Your task to perform on an android device: Go to calendar. Show me events next week Image 0: 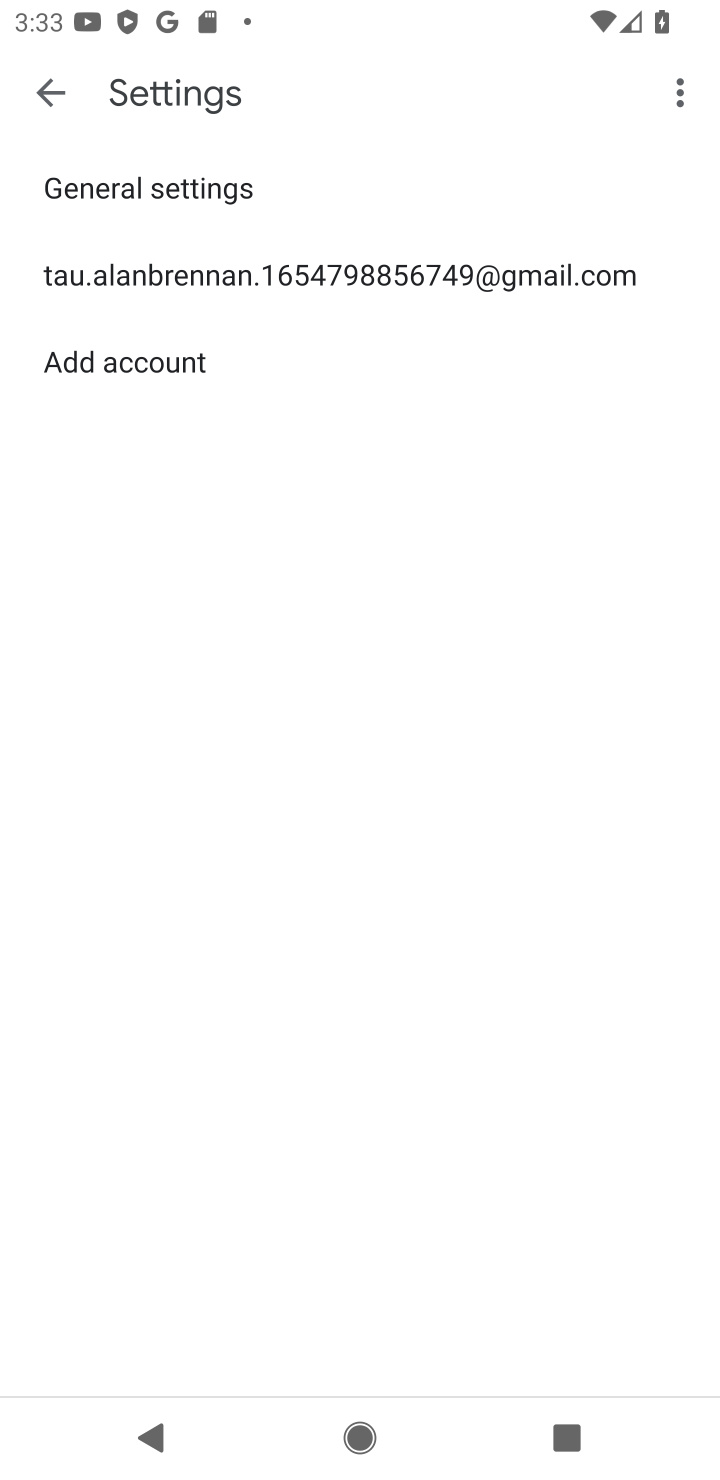
Step 0: press home button
Your task to perform on an android device: Go to calendar. Show me events next week Image 1: 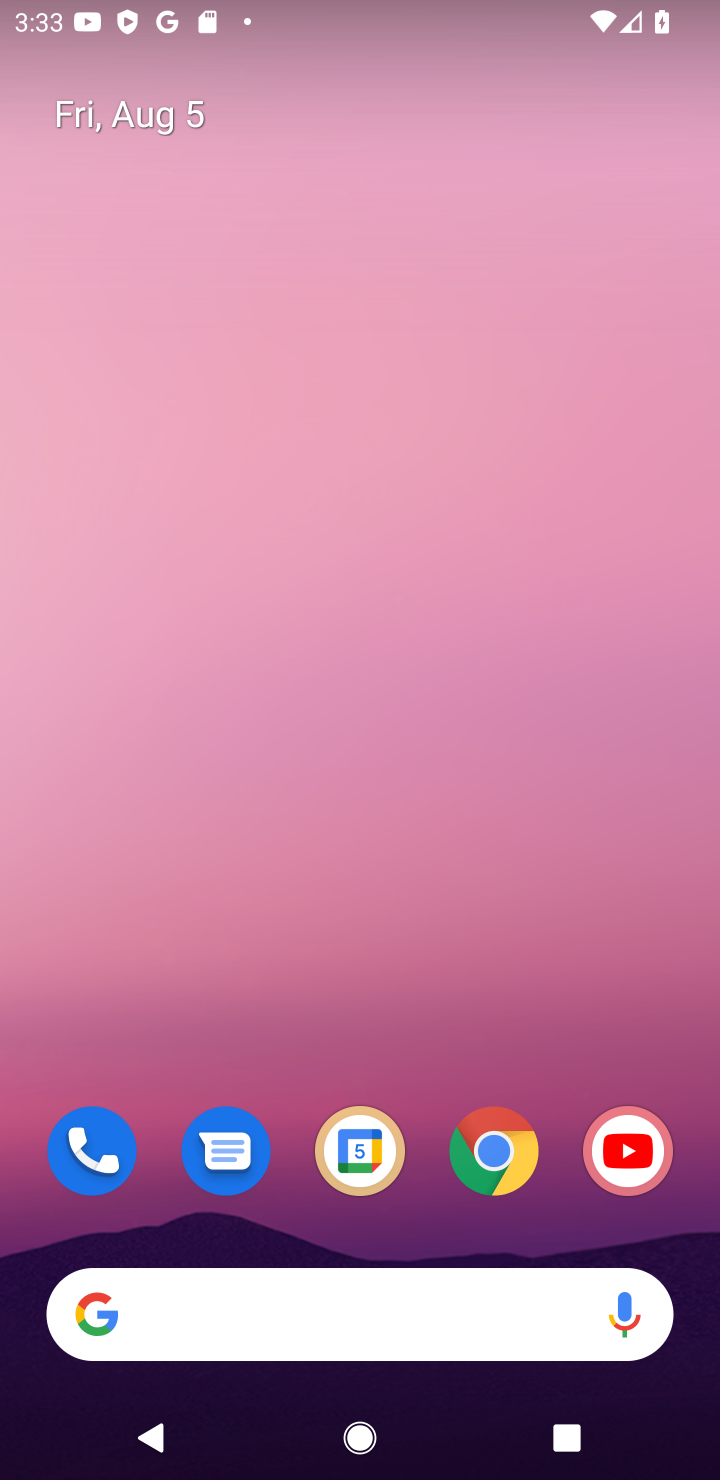
Step 1: click (357, 1154)
Your task to perform on an android device: Go to calendar. Show me events next week Image 2: 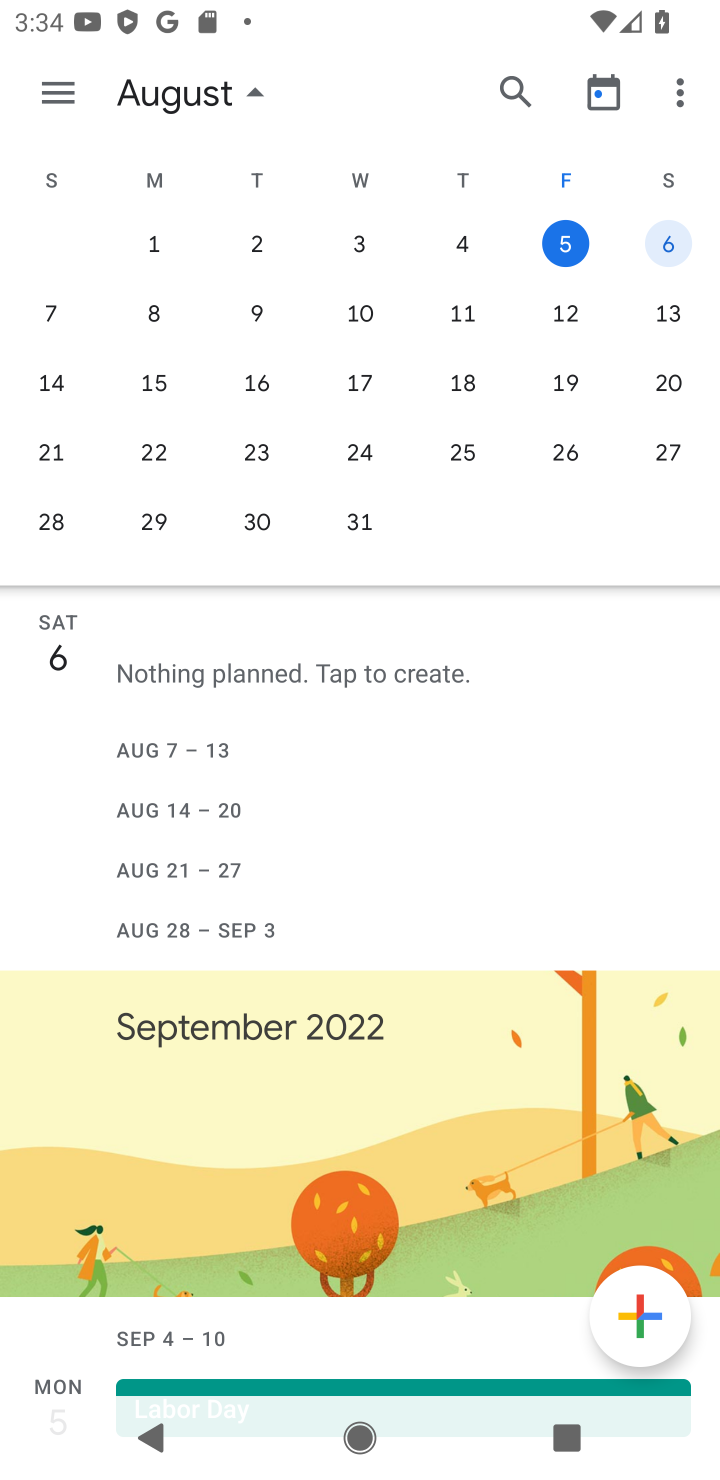
Step 2: click (71, 332)
Your task to perform on an android device: Go to calendar. Show me events next week Image 3: 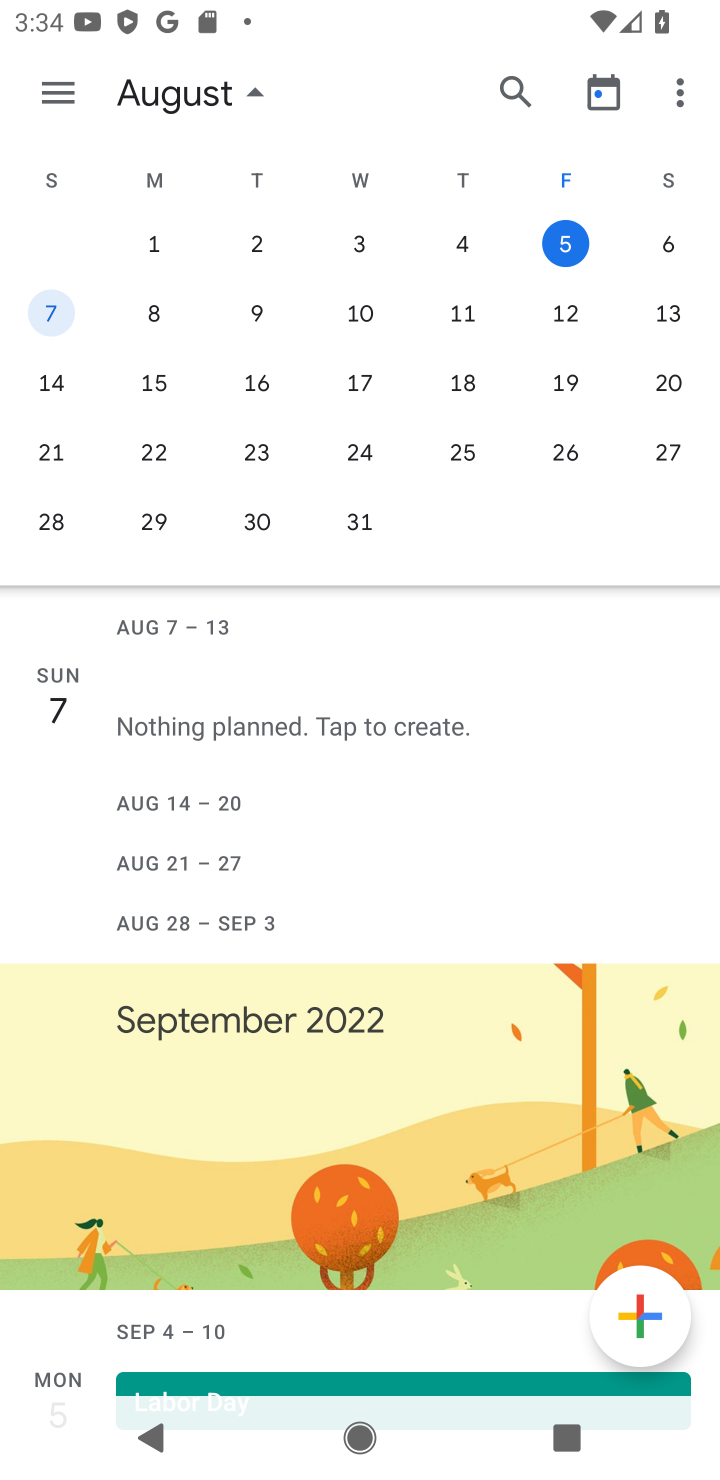
Step 3: click (143, 313)
Your task to perform on an android device: Go to calendar. Show me events next week Image 4: 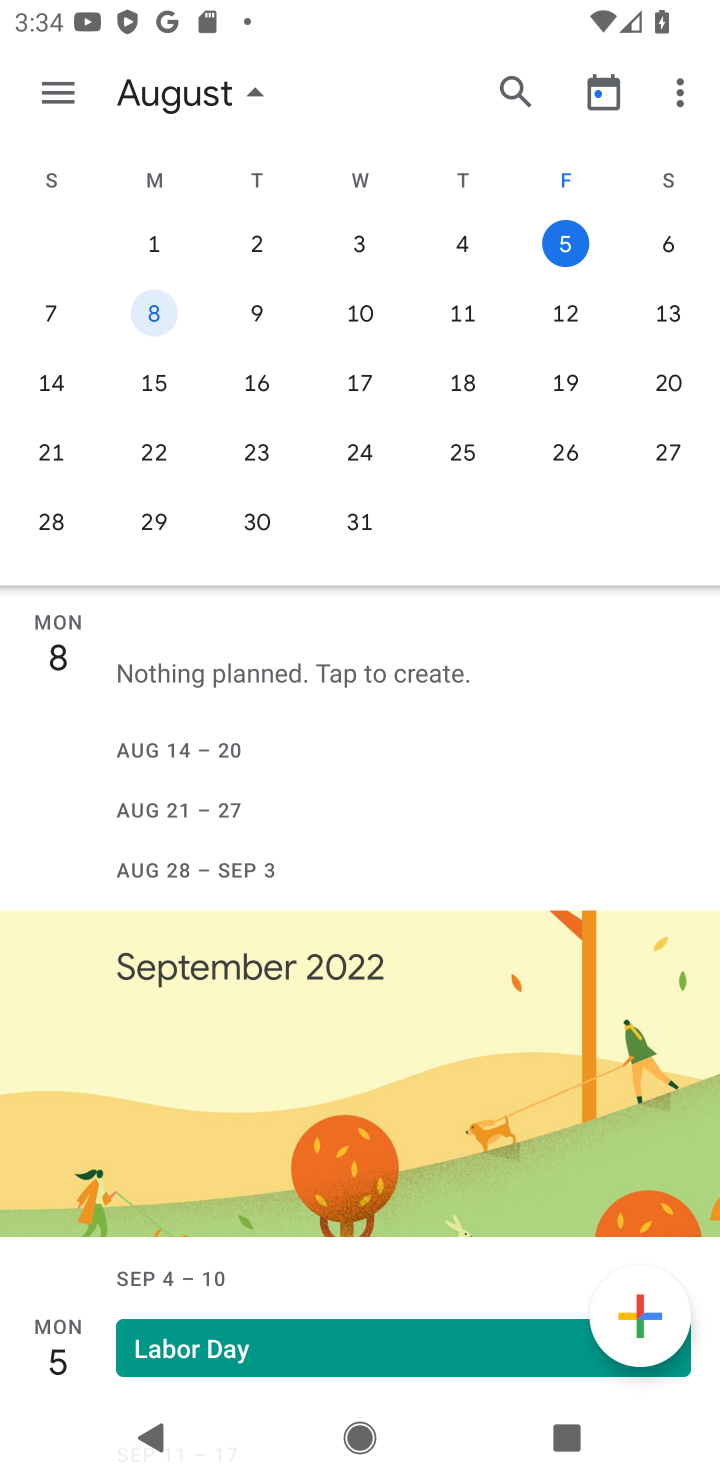
Step 4: click (237, 314)
Your task to perform on an android device: Go to calendar. Show me events next week Image 5: 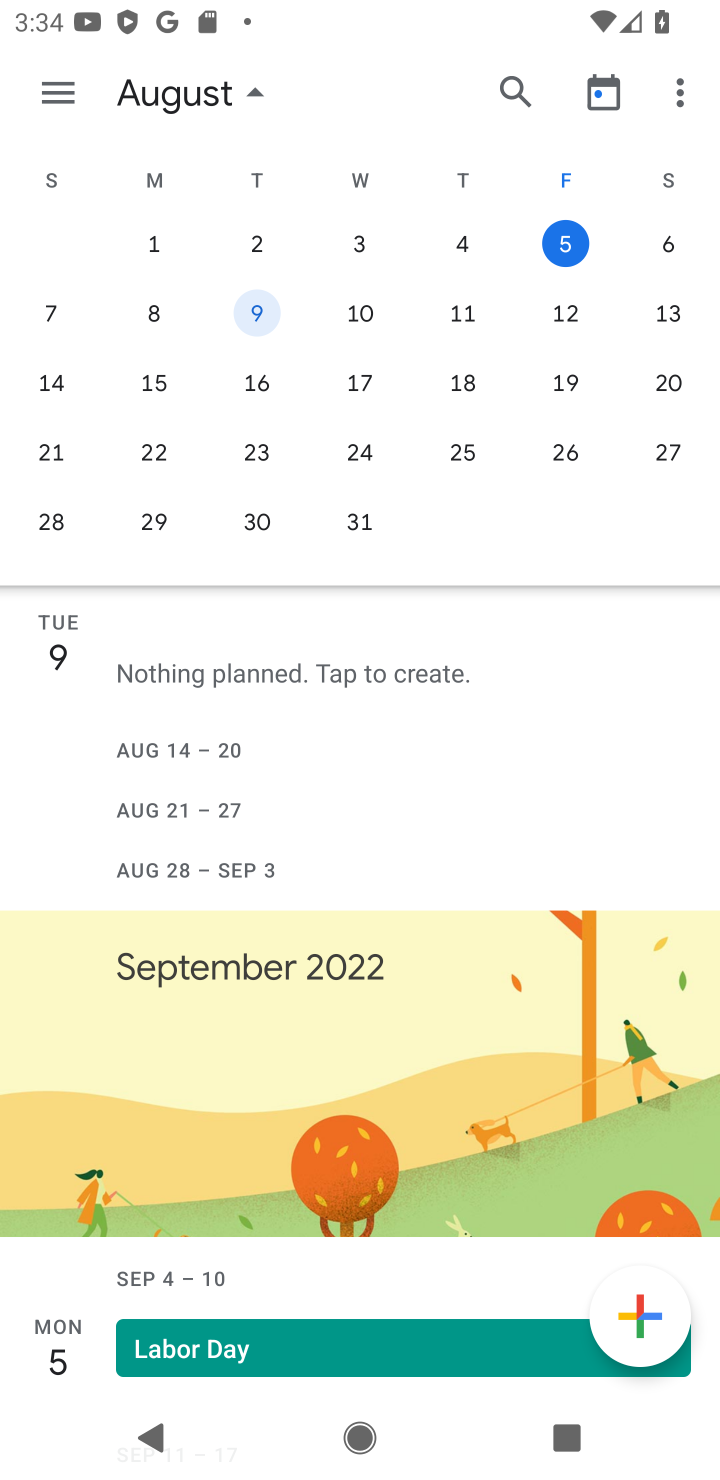
Step 5: click (374, 318)
Your task to perform on an android device: Go to calendar. Show me events next week Image 6: 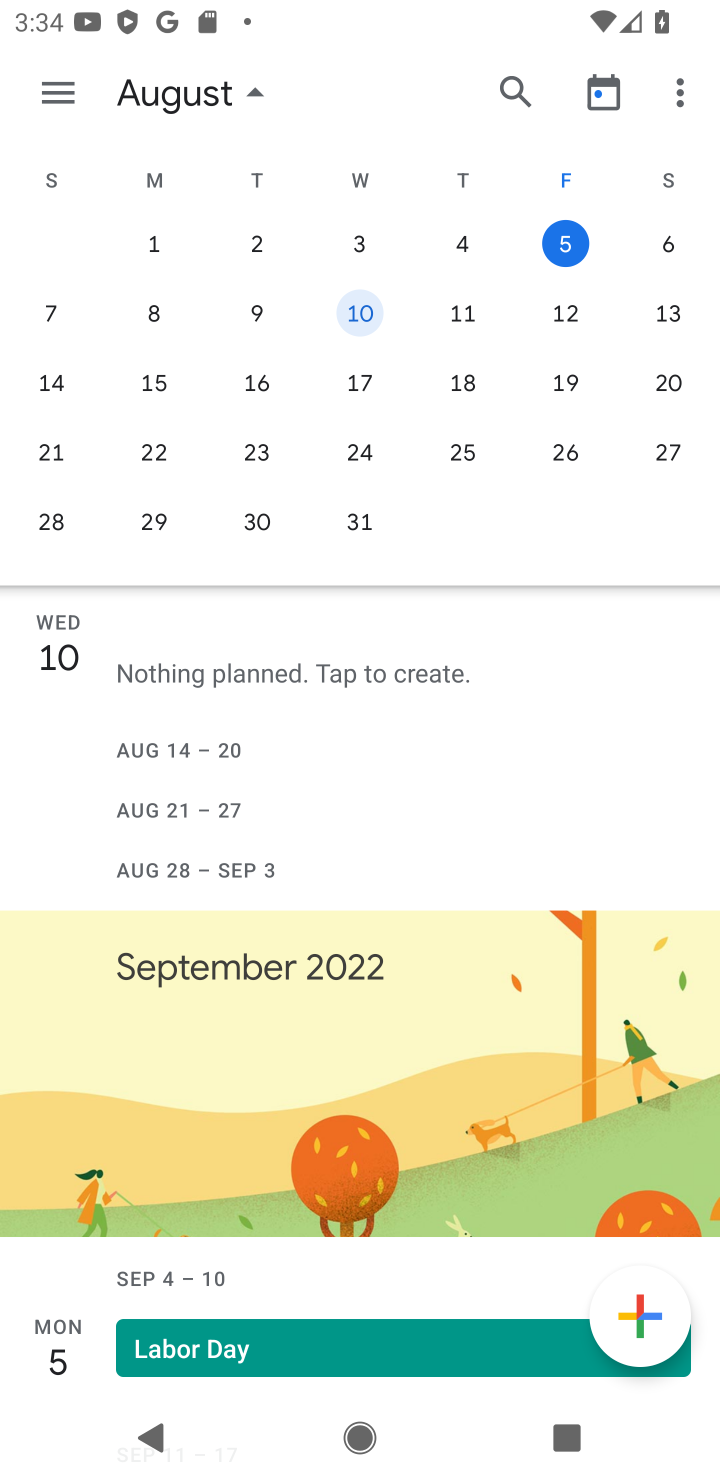
Step 6: click (480, 323)
Your task to perform on an android device: Go to calendar. Show me events next week Image 7: 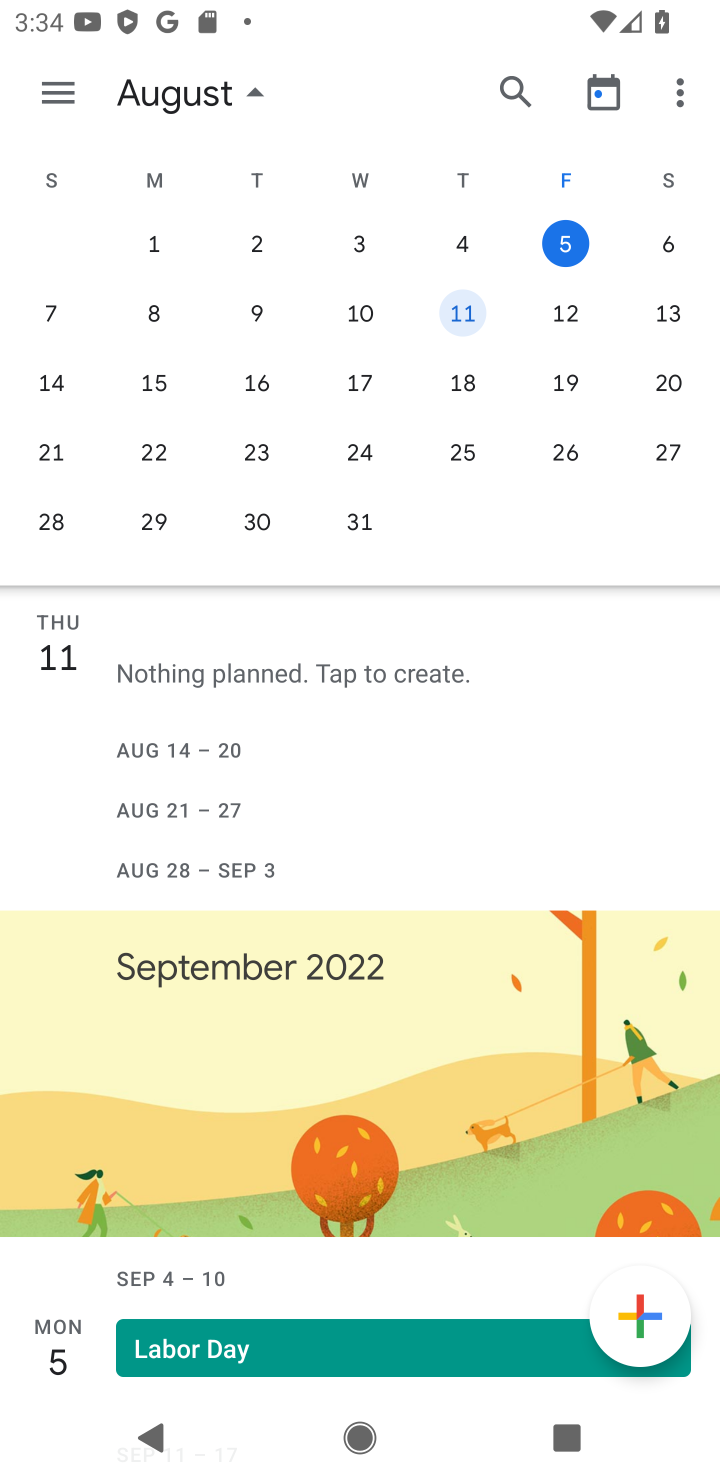
Step 7: click (575, 322)
Your task to perform on an android device: Go to calendar. Show me events next week Image 8: 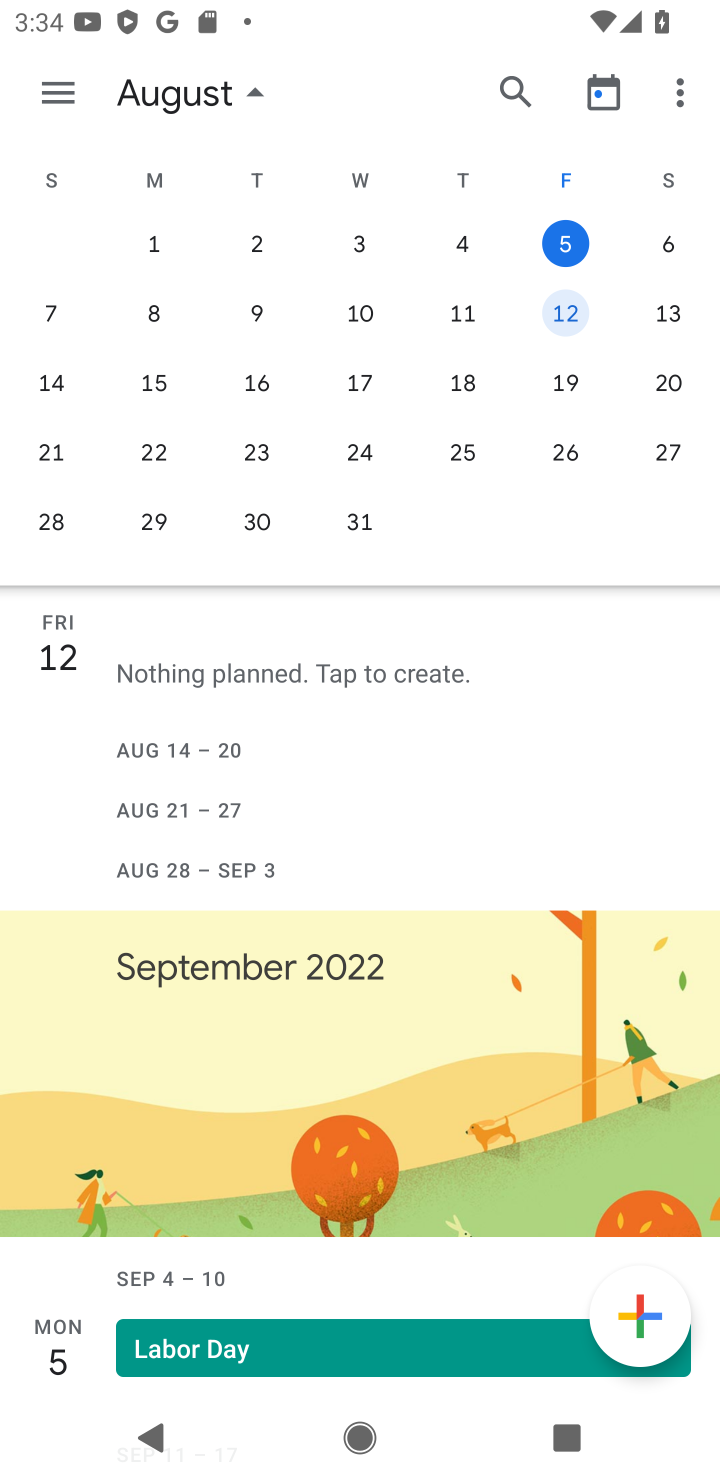
Step 8: click (646, 319)
Your task to perform on an android device: Go to calendar. Show me events next week Image 9: 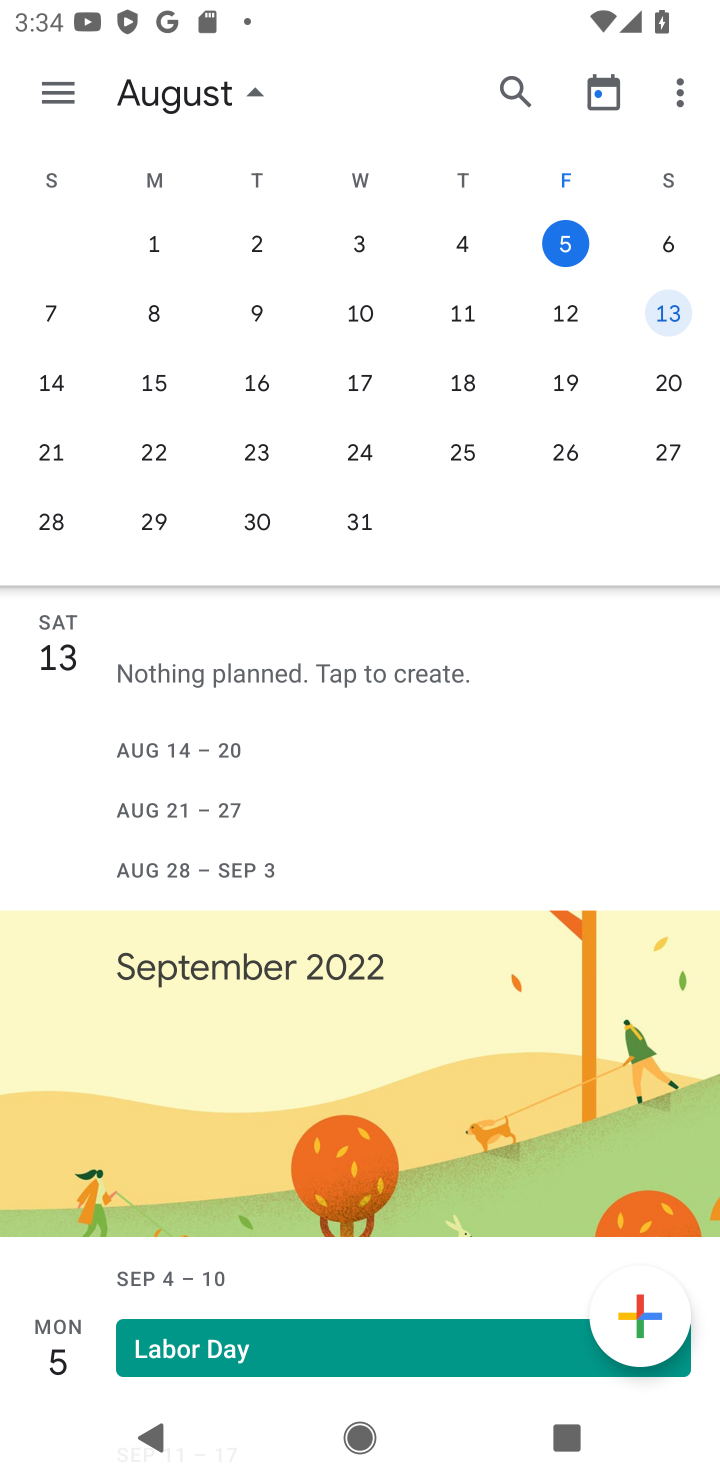
Step 9: task complete